Your task to perform on an android device: Go to Yahoo.com Image 0: 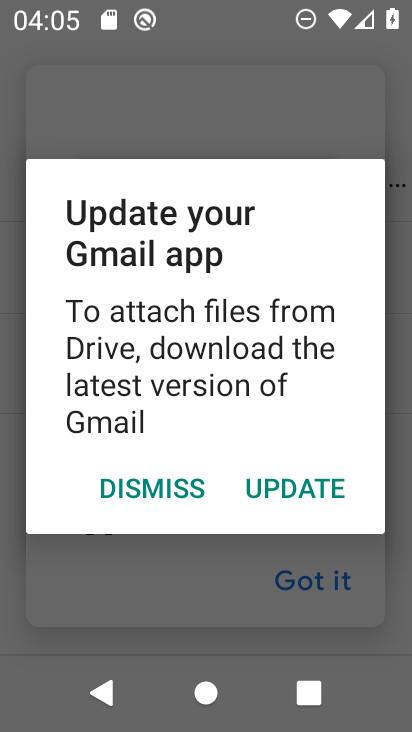
Step 0: press back button
Your task to perform on an android device: Go to Yahoo.com Image 1: 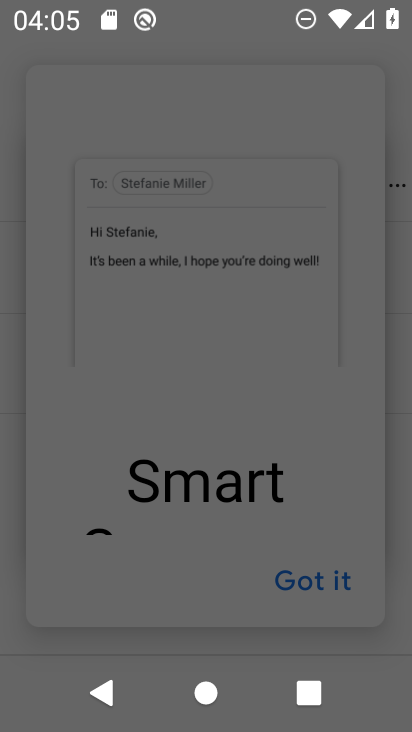
Step 1: press home button
Your task to perform on an android device: Go to Yahoo.com Image 2: 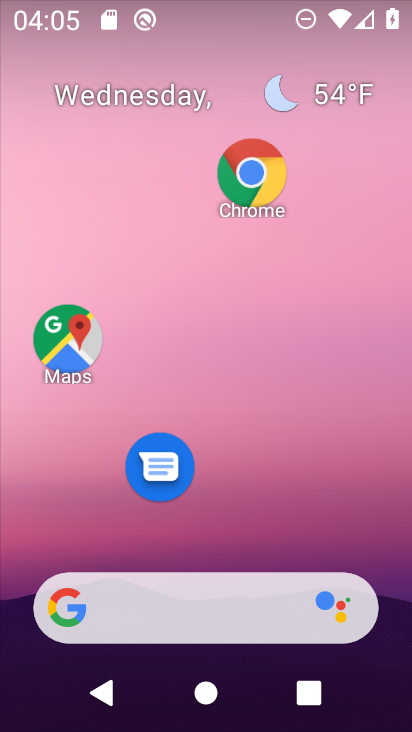
Step 2: click (253, 170)
Your task to perform on an android device: Go to Yahoo.com Image 3: 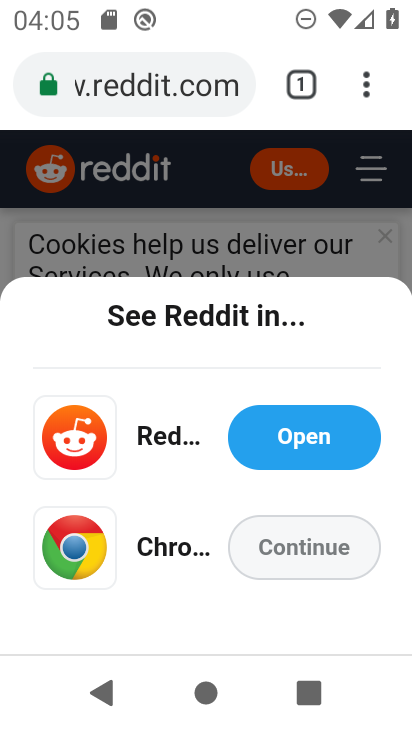
Step 3: click (298, 77)
Your task to perform on an android device: Go to Yahoo.com Image 4: 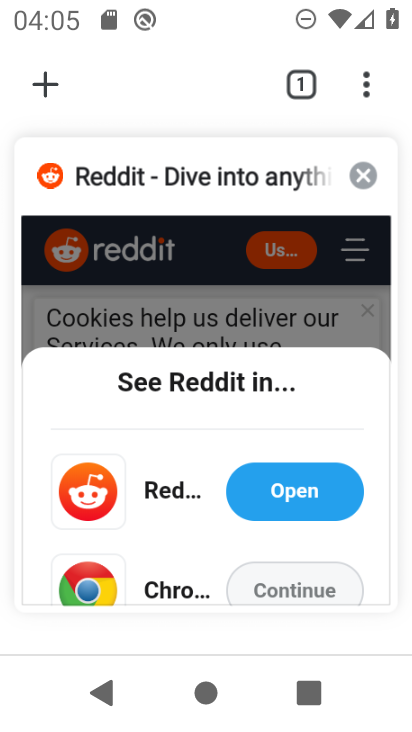
Step 4: click (47, 80)
Your task to perform on an android device: Go to Yahoo.com Image 5: 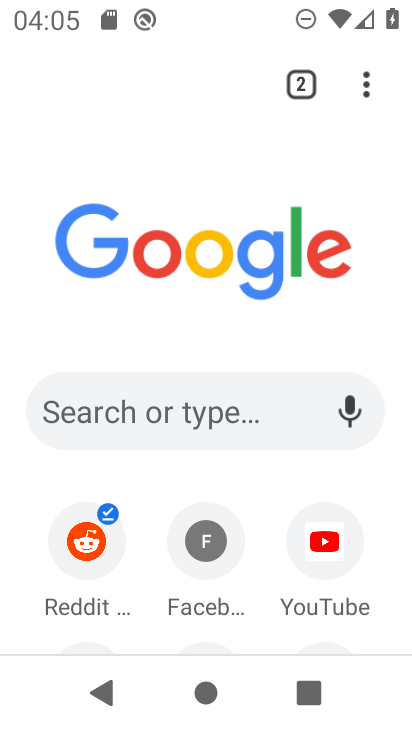
Step 5: drag from (239, 573) to (273, 194)
Your task to perform on an android device: Go to Yahoo.com Image 6: 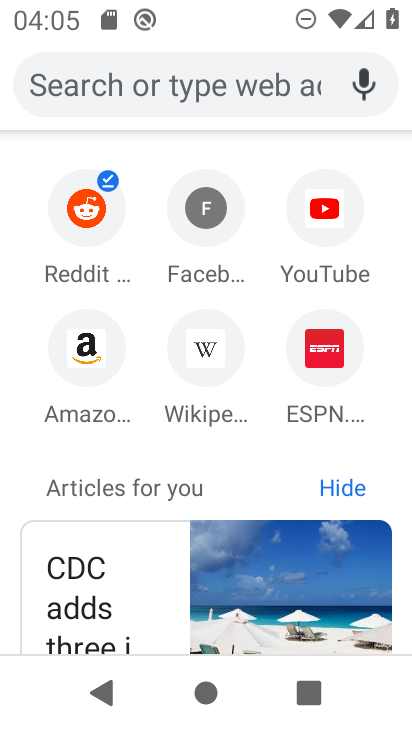
Step 6: click (157, 91)
Your task to perform on an android device: Go to Yahoo.com Image 7: 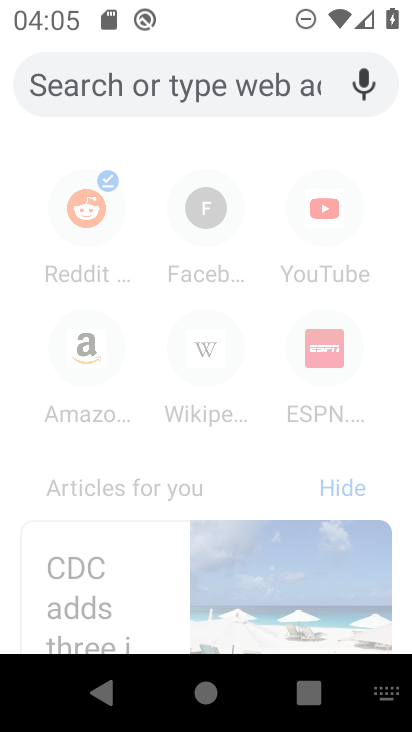
Step 7: type "yahoo.com"
Your task to perform on an android device: Go to Yahoo.com Image 8: 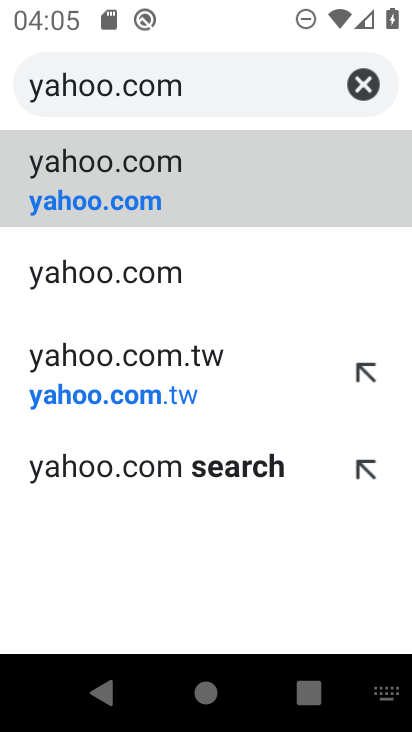
Step 8: click (121, 179)
Your task to perform on an android device: Go to Yahoo.com Image 9: 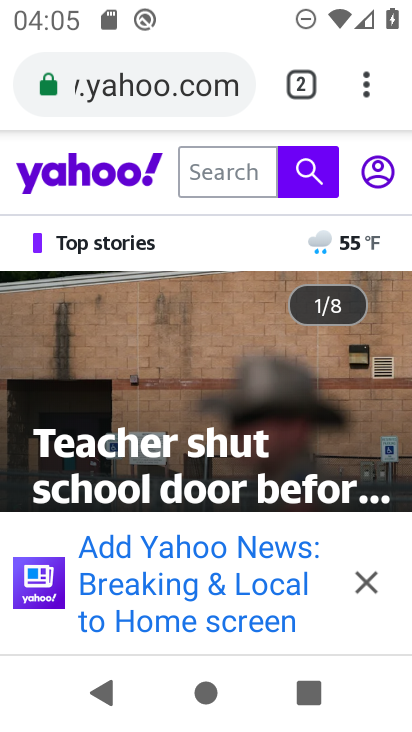
Step 9: task complete